Your task to perform on an android device: Open Maps and search for coffee Image 0: 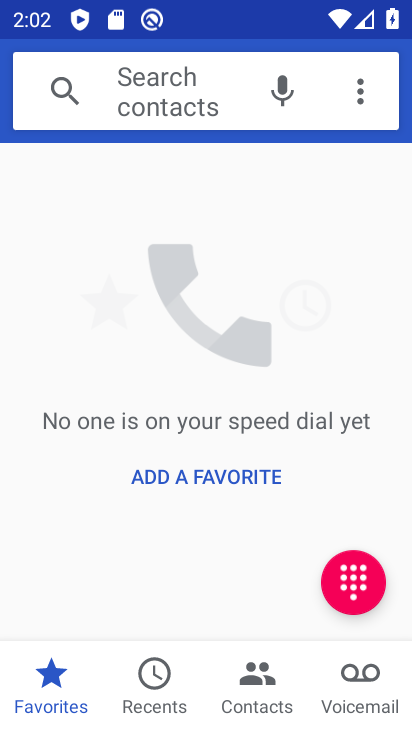
Step 0: press home button
Your task to perform on an android device: Open Maps and search for coffee Image 1: 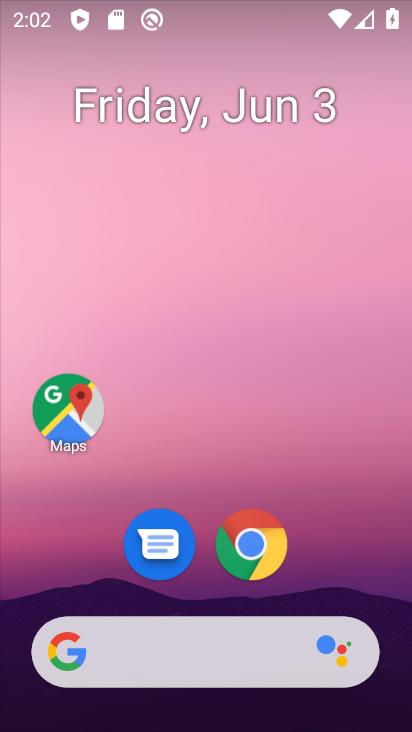
Step 1: drag from (328, 545) to (283, 60)
Your task to perform on an android device: Open Maps and search for coffee Image 2: 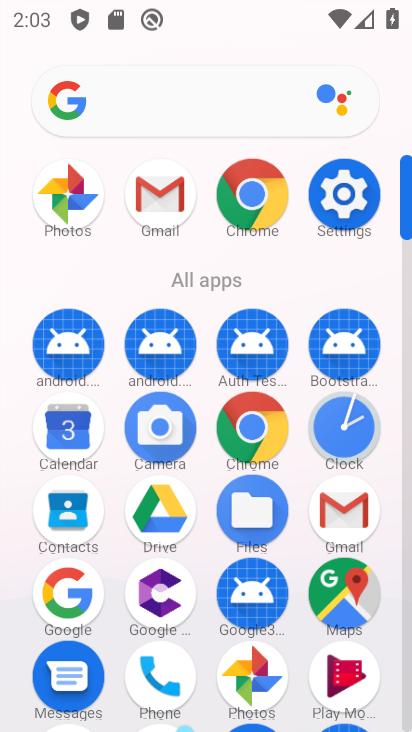
Step 2: click (338, 596)
Your task to perform on an android device: Open Maps and search for coffee Image 3: 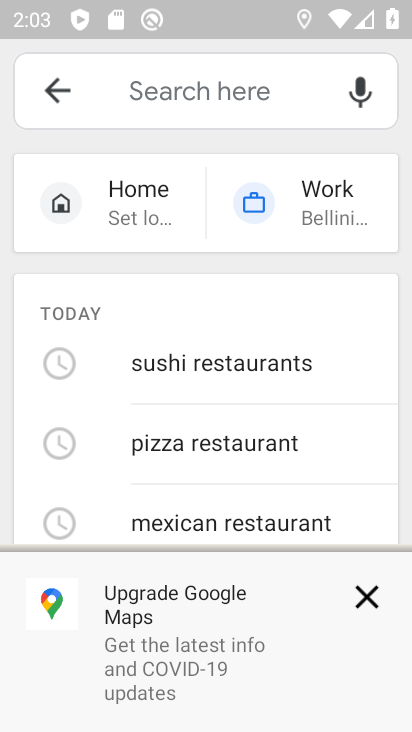
Step 3: click (216, 95)
Your task to perform on an android device: Open Maps and search for coffee Image 4: 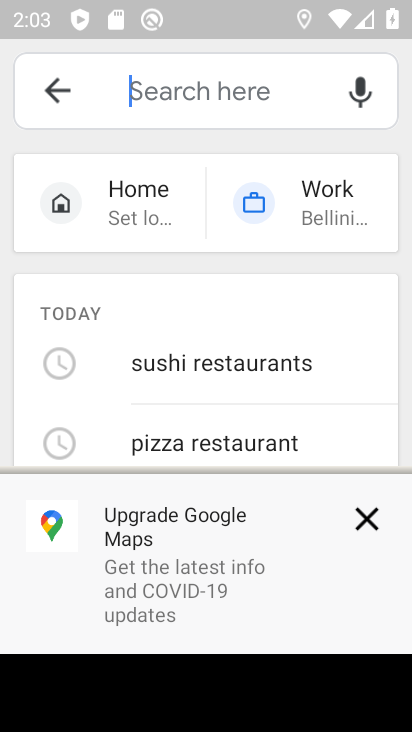
Step 4: type "coffee"
Your task to perform on an android device: Open Maps and search for coffee Image 5: 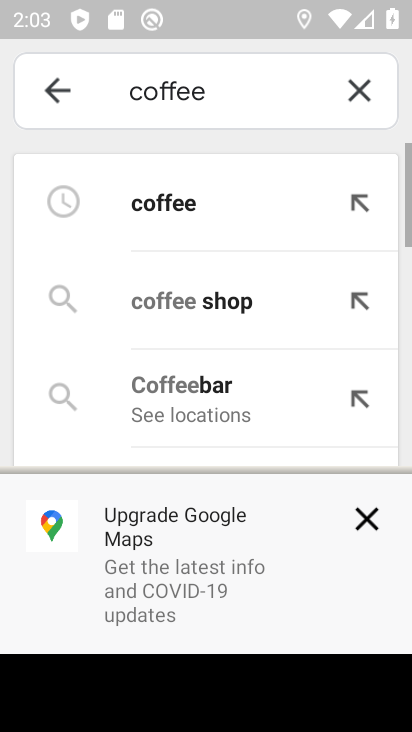
Step 5: click (205, 207)
Your task to perform on an android device: Open Maps and search for coffee Image 6: 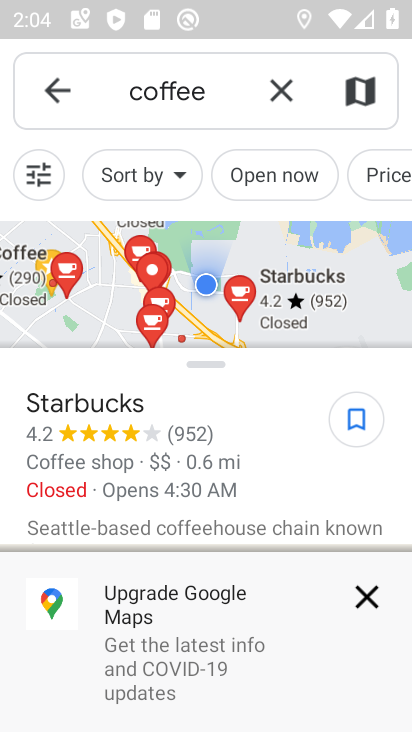
Step 6: task complete